Your task to perform on an android device: Open Amazon Image 0: 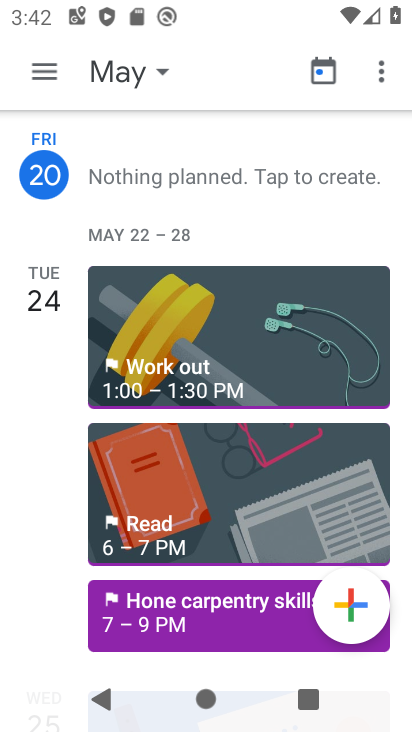
Step 0: press back button
Your task to perform on an android device: Open Amazon Image 1: 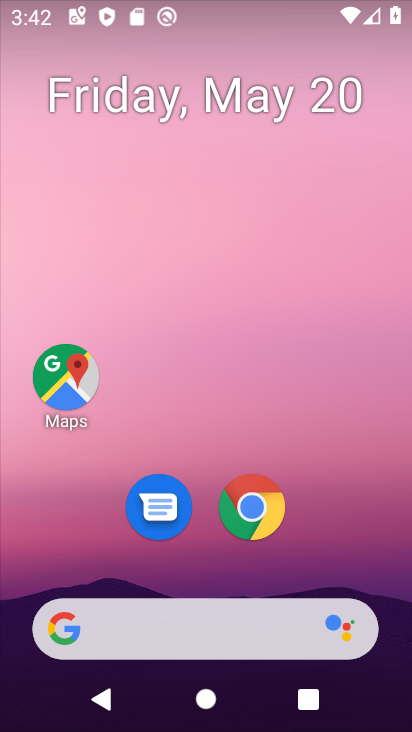
Step 1: drag from (325, 537) to (156, 207)
Your task to perform on an android device: Open Amazon Image 2: 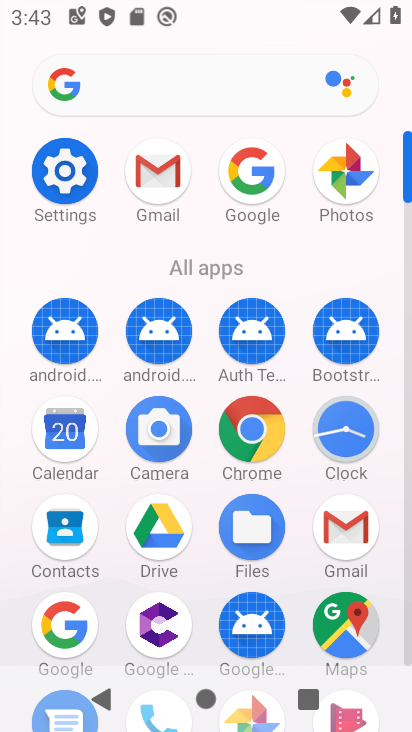
Step 2: click (256, 432)
Your task to perform on an android device: Open Amazon Image 3: 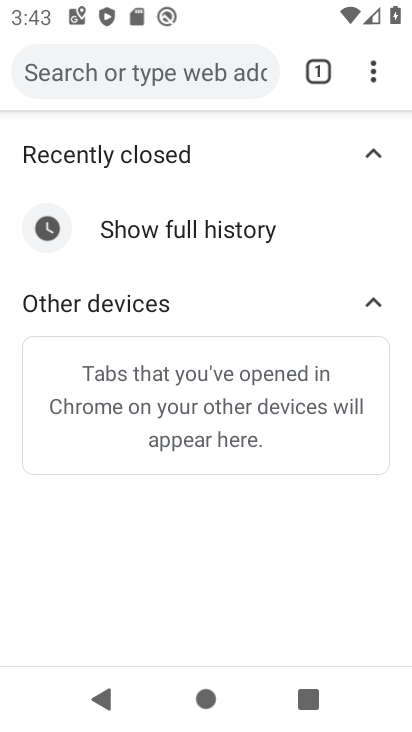
Step 3: click (241, 75)
Your task to perform on an android device: Open Amazon Image 4: 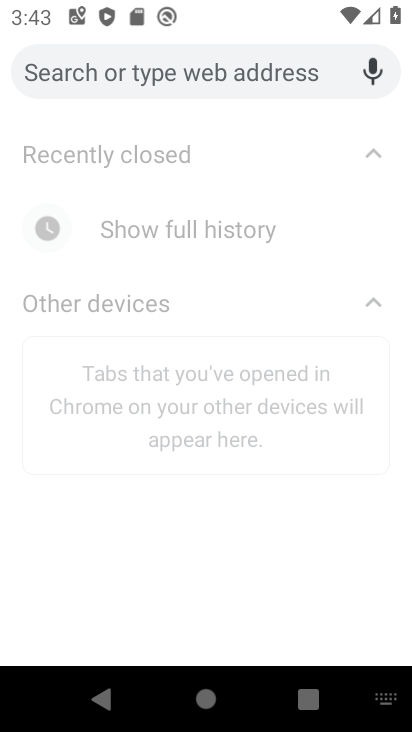
Step 4: type "Amazon"
Your task to perform on an android device: Open Amazon Image 5: 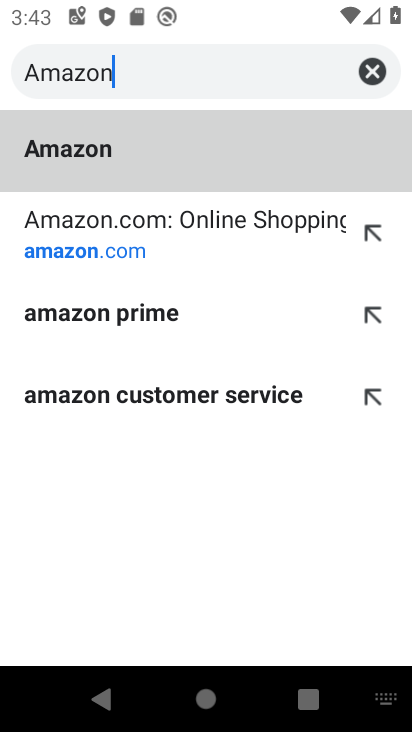
Step 5: click (65, 145)
Your task to perform on an android device: Open Amazon Image 6: 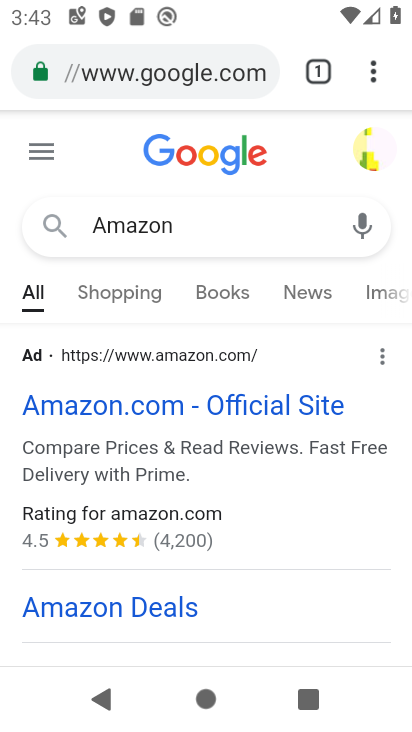
Step 6: click (145, 408)
Your task to perform on an android device: Open Amazon Image 7: 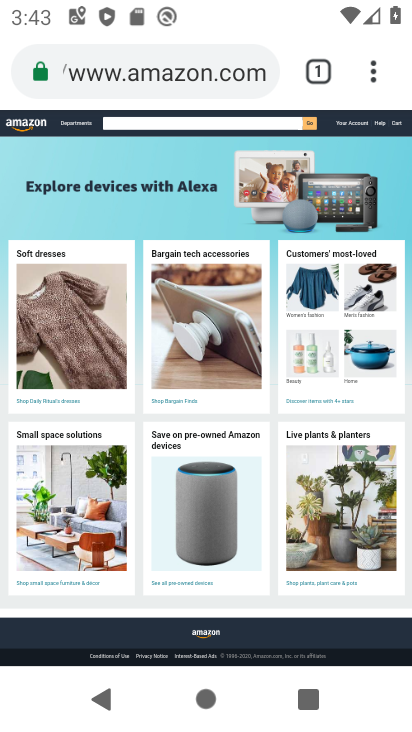
Step 7: task complete